Your task to perform on an android device: Set the phone to "Do not disturb". Image 0: 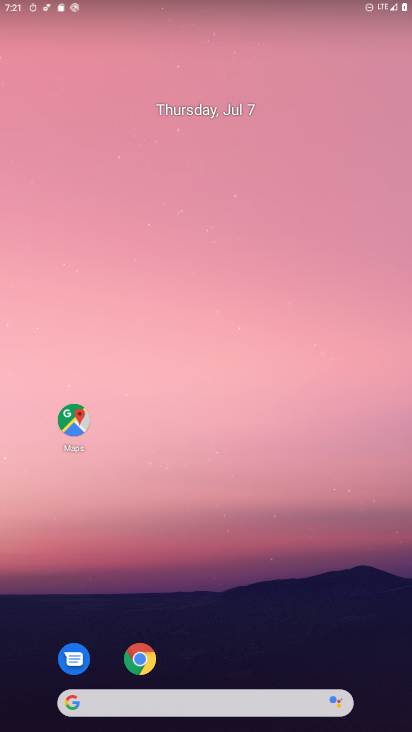
Step 0: drag from (219, 4) to (129, 515)
Your task to perform on an android device: Set the phone to "Do not disturb". Image 1: 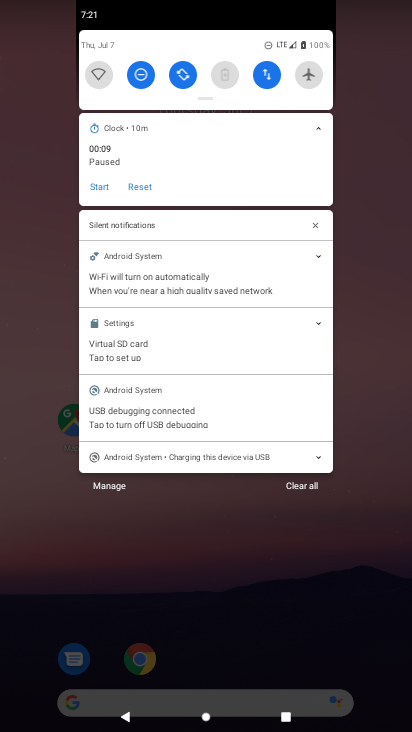
Step 1: task complete